Your task to perform on an android device: Clear the cart on target.com. Add "razer deathadder" to the cart on target.com, then select checkout. Image 0: 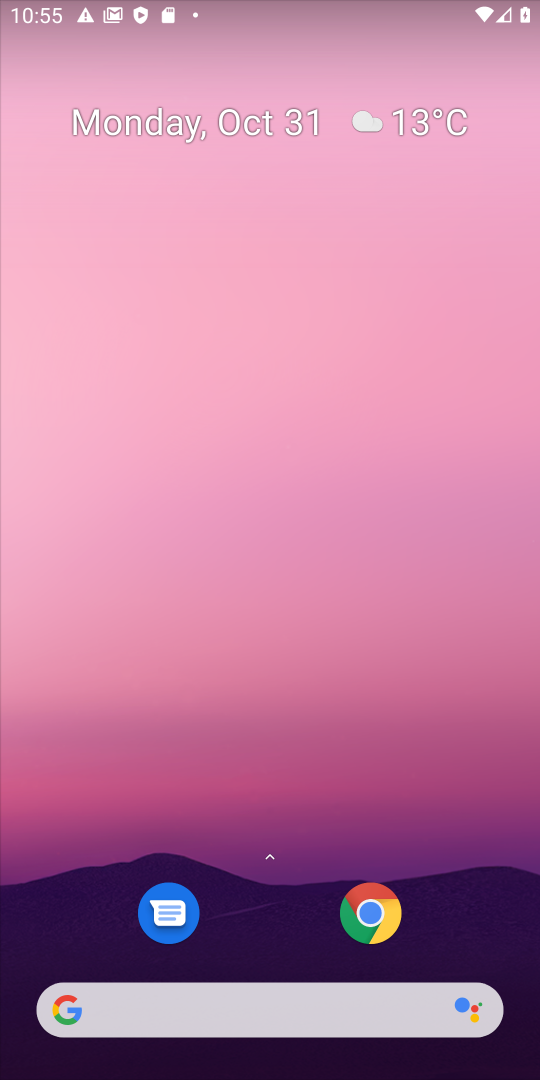
Step 0: click (302, 974)
Your task to perform on an android device: Clear the cart on target.com. Add "razer deathadder" to the cart on target.com, then select checkout. Image 1: 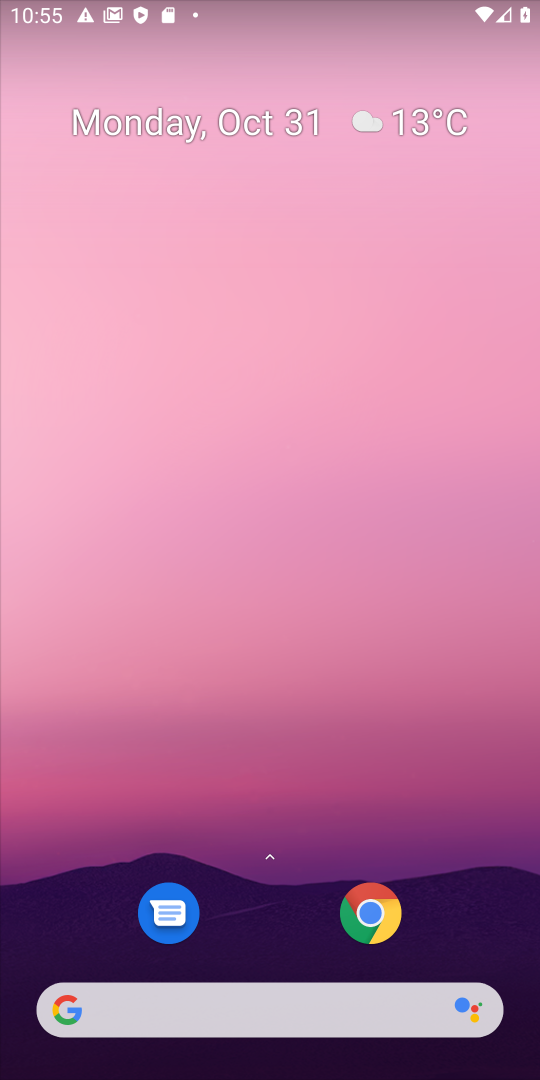
Step 1: click (288, 991)
Your task to perform on an android device: Clear the cart on target.com. Add "razer deathadder" to the cart on target.com, then select checkout. Image 2: 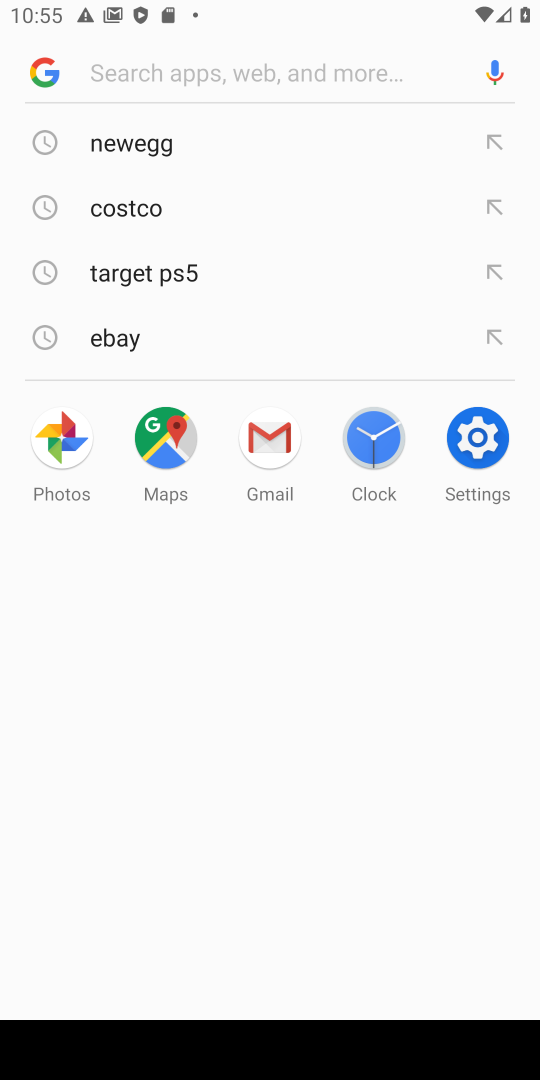
Step 2: click (273, 1000)
Your task to perform on an android device: Clear the cart on target.com. Add "razer deathadder" to the cart on target.com, then select checkout. Image 3: 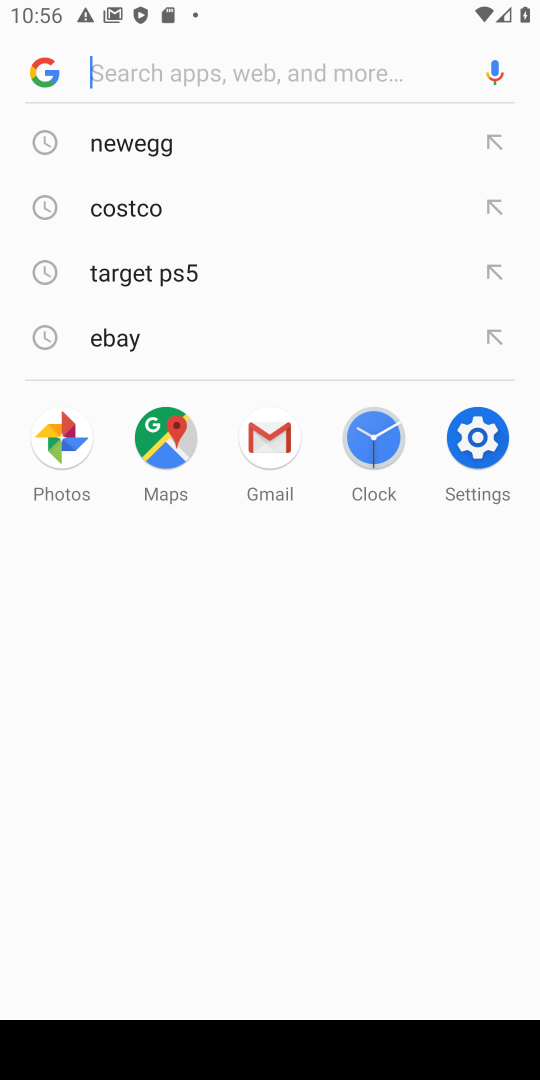
Step 3: type "targety"
Your task to perform on an android device: Clear the cart on target.com. Add "razer deathadder" to the cart on target.com, then select checkout. Image 4: 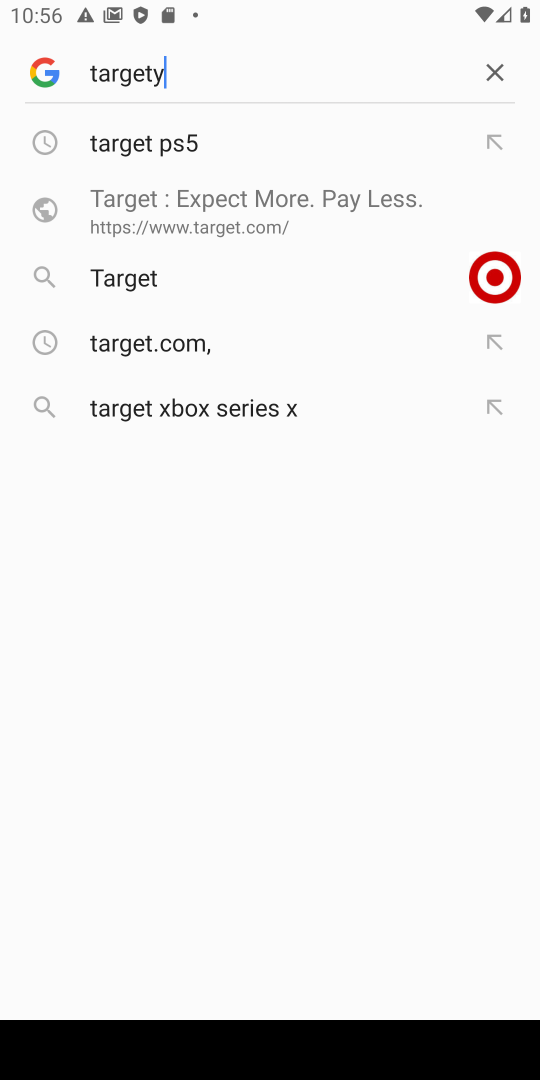
Step 4: click (231, 126)
Your task to perform on an android device: Clear the cart on target.com. Add "razer deathadder" to the cart on target.com, then select checkout. Image 5: 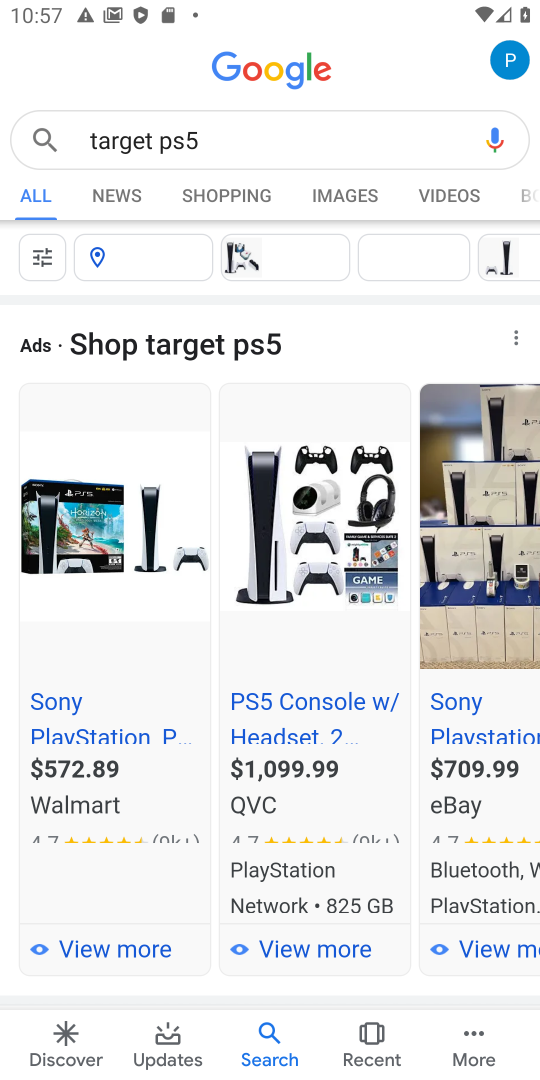
Step 5: click (110, 885)
Your task to perform on an android device: Clear the cart on target.com. Add "razer deathadder" to the cart on target.com, then select checkout. Image 6: 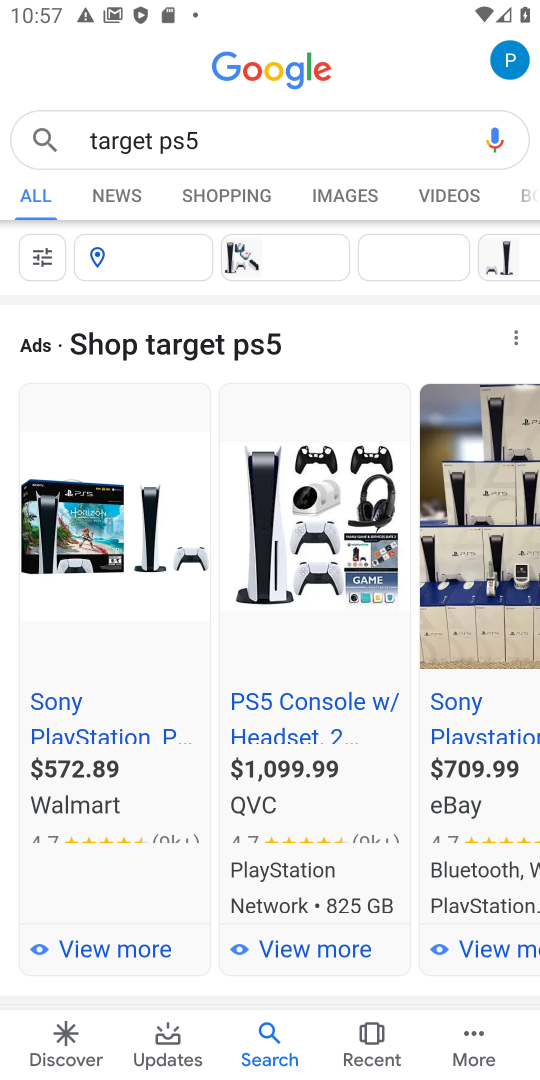
Step 6: click (97, 938)
Your task to perform on an android device: Clear the cart on target.com. Add "razer deathadder" to the cart on target.com, then select checkout. Image 7: 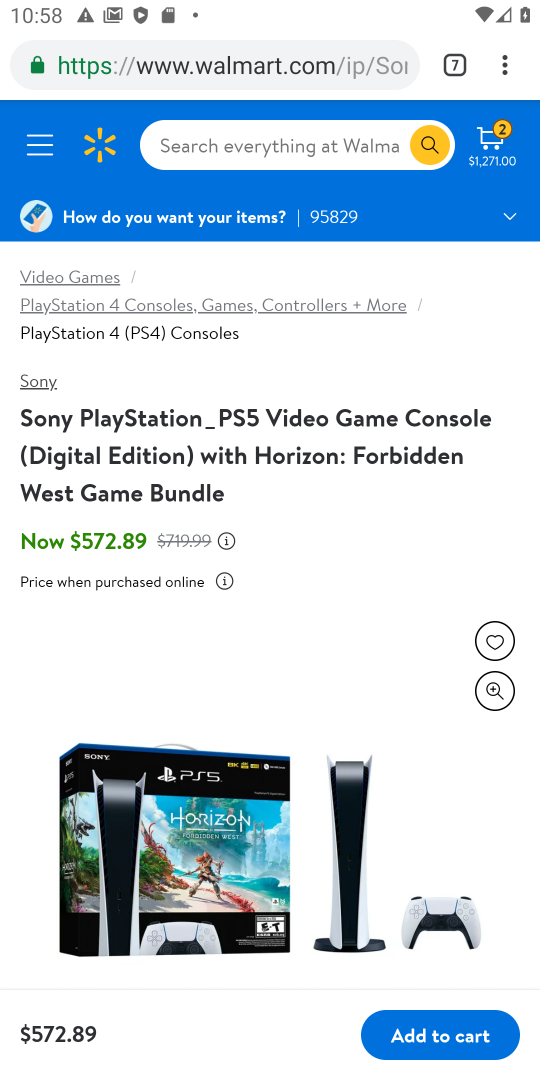
Step 7: task complete